Your task to perform on an android device: Clear the shopping cart on bestbuy.com. Add alienware aurora to the cart on bestbuy.com, then select checkout. Image 0: 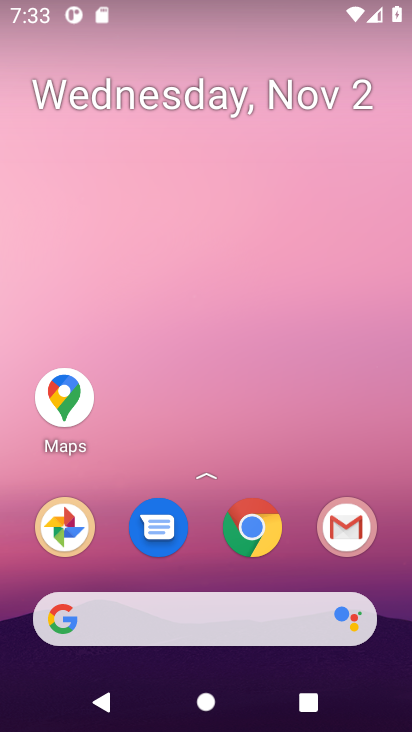
Step 0: click (258, 548)
Your task to perform on an android device: Clear the shopping cart on bestbuy.com. Add alienware aurora to the cart on bestbuy.com, then select checkout. Image 1: 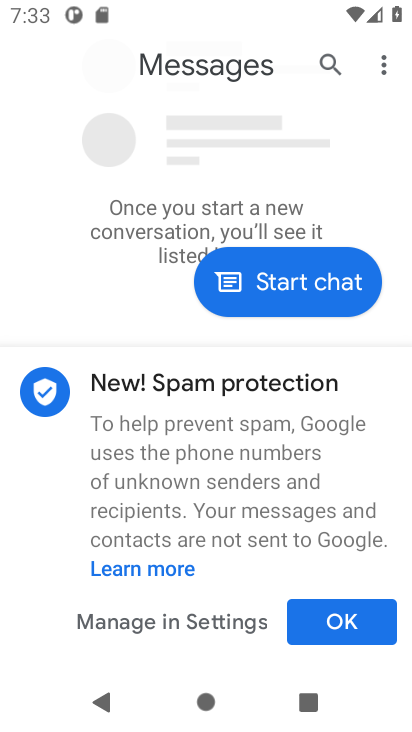
Step 1: press home button
Your task to perform on an android device: Clear the shopping cart on bestbuy.com. Add alienware aurora to the cart on bestbuy.com, then select checkout. Image 2: 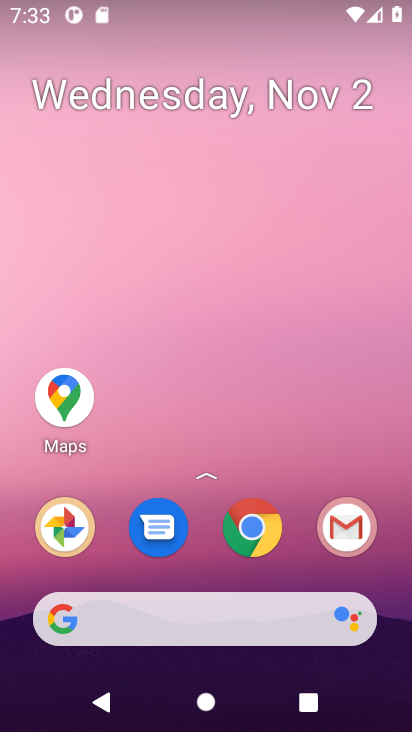
Step 2: click (266, 543)
Your task to perform on an android device: Clear the shopping cart on bestbuy.com. Add alienware aurora to the cart on bestbuy.com, then select checkout. Image 3: 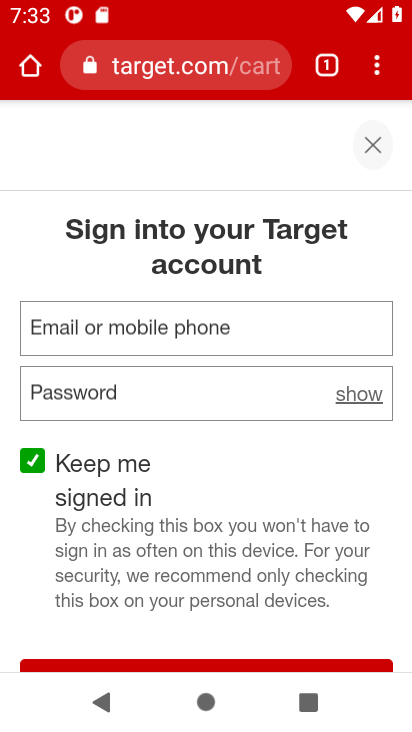
Step 3: click (172, 70)
Your task to perform on an android device: Clear the shopping cart on bestbuy.com. Add alienware aurora to the cart on bestbuy.com, then select checkout. Image 4: 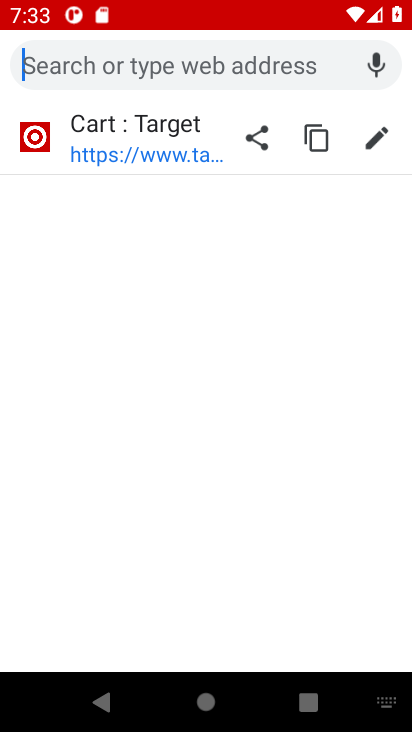
Step 4: type "bestbuy"
Your task to perform on an android device: Clear the shopping cart on bestbuy.com. Add alienware aurora to the cart on bestbuy.com, then select checkout. Image 5: 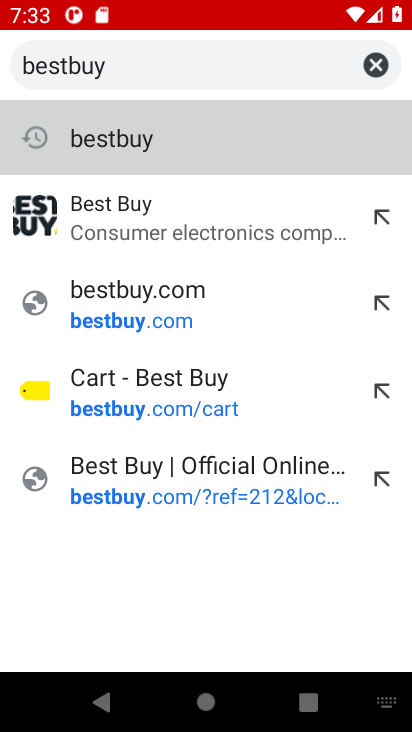
Step 5: click (108, 140)
Your task to perform on an android device: Clear the shopping cart on bestbuy.com. Add alienware aurora to the cart on bestbuy.com, then select checkout. Image 6: 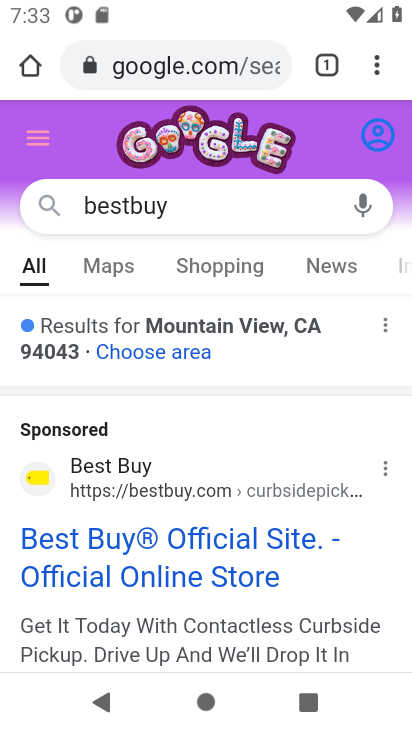
Step 6: click (137, 581)
Your task to perform on an android device: Clear the shopping cart on bestbuy.com. Add alienware aurora to the cart on bestbuy.com, then select checkout. Image 7: 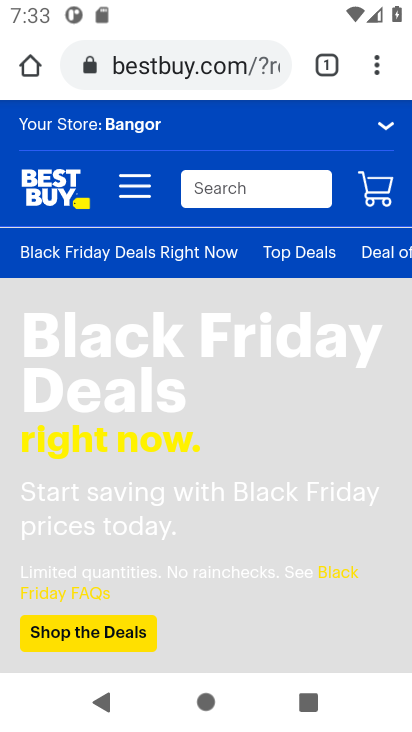
Step 7: click (383, 191)
Your task to perform on an android device: Clear the shopping cart on bestbuy.com. Add alienware aurora to the cart on bestbuy.com, then select checkout. Image 8: 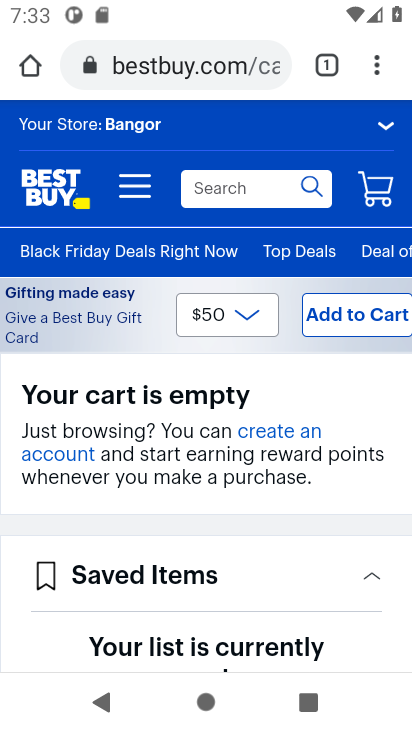
Step 8: click (272, 193)
Your task to perform on an android device: Clear the shopping cart on bestbuy.com. Add alienware aurora to the cart on bestbuy.com, then select checkout. Image 9: 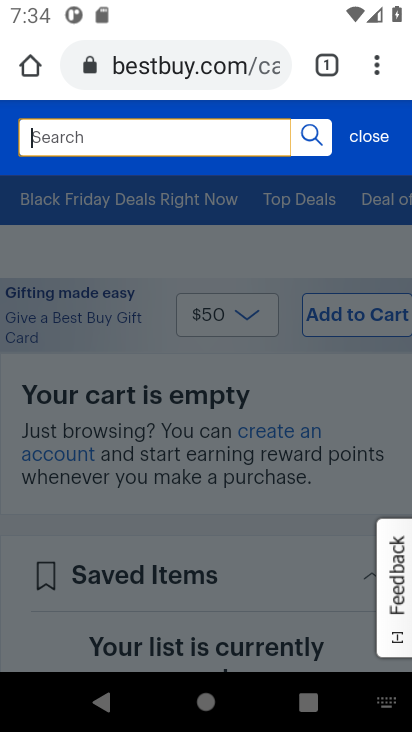
Step 9: type "alienware aurora"
Your task to perform on an android device: Clear the shopping cart on bestbuy.com. Add alienware aurora to the cart on bestbuy.com, then select checkout. Image 10: 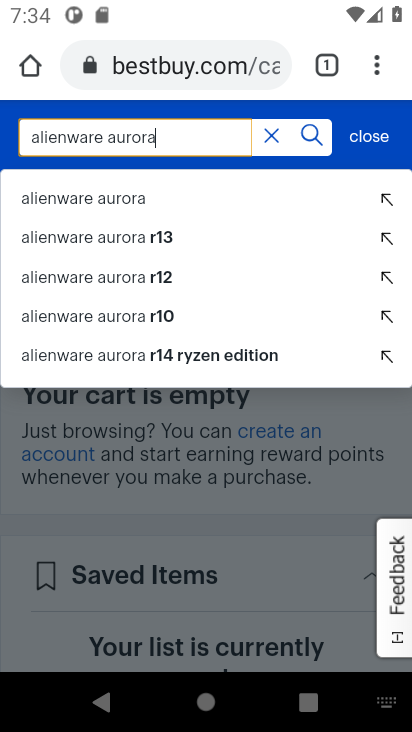
Step 10: click (74, 197)
Your task to perform on an android device: Clear the shopping cart on bestbuy.com. Add alienware aurora to the cart on bestbuy.com, then select checkout. Image 11: 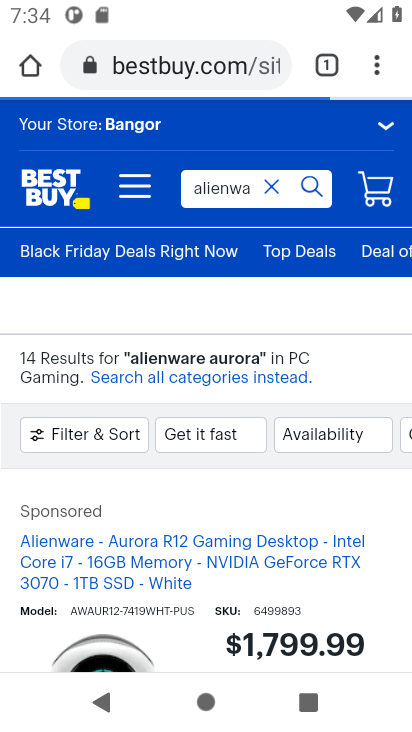
Step 11: drag from (217, 505) to (230, 247)
Your task to perform on an android device: Clear the shopping cart on bestbuy.com. Add alienware aurora to the cart on bestbuy.com, then select checkout. Image 12: 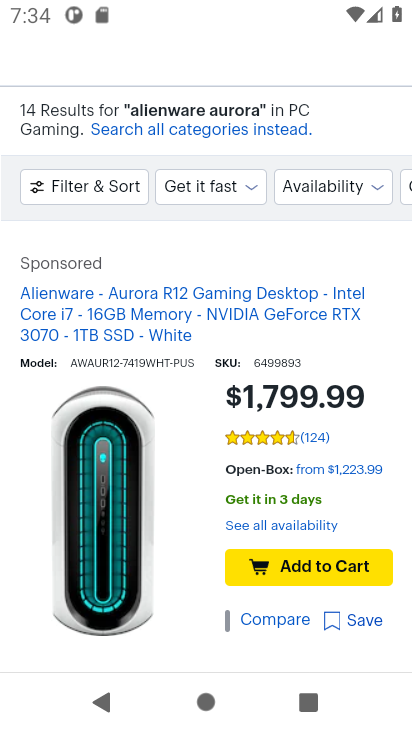
Step 12: click (302, 570)
Your task to perform on an android device: Clear the shopping cart on bestbuy.com. Add alienware aurora to the cart on bestbuy.com, then select checkout. Image 13: 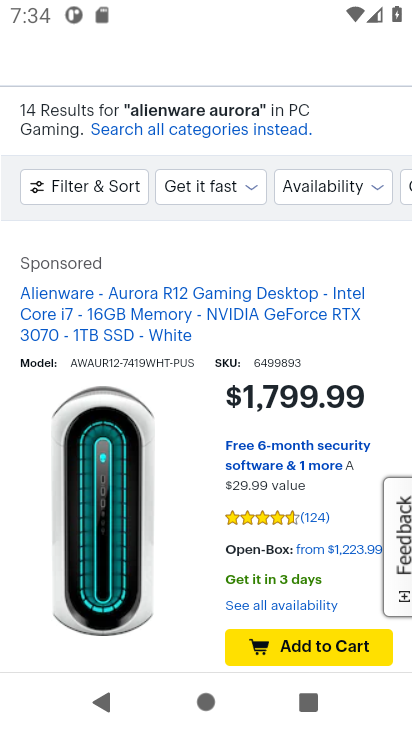
Step 13: click (120, 490)
Your task to perform on an android device: Clear the shopping cart on bestbuy.com. Add alienware aurora to the cart on bestbuy.com, then select checkout. Image 14: 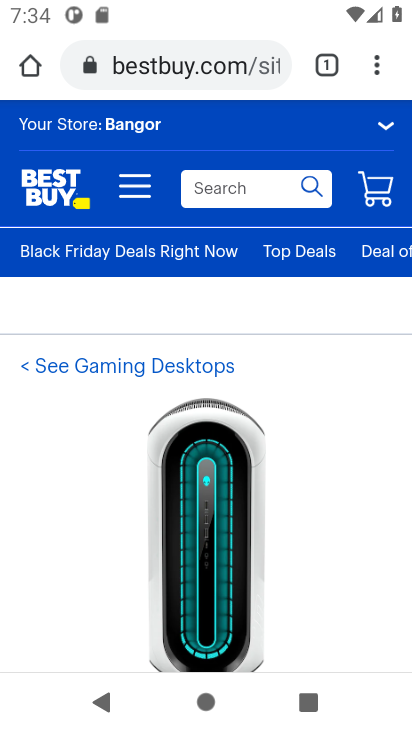
Step 14: drag from (340, 566) to (323, 237)
Your task to perform on an android device: Clear the shopping cart on bestbuy.com. Add alienware aurora to the cart on bestbuy.com, then select checkout. Image 15: 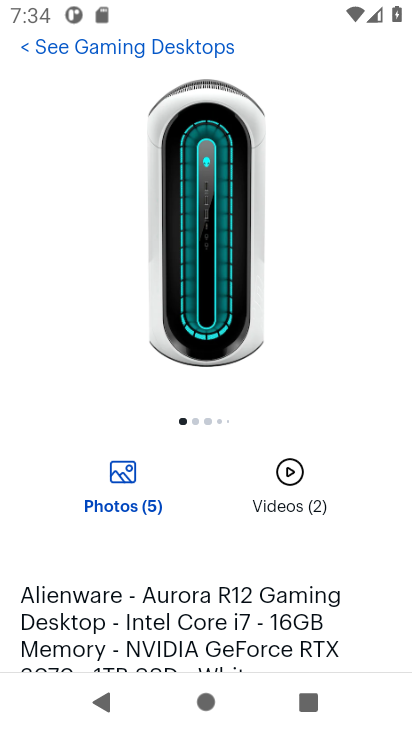
Step 15: drag from (351, 609) to (351, 199)
Your task to perform on an android device: Clear the shopping cart on bestbuy.com. Add alienware aurora to the cart on bestbuy.com, then select checkout. Image 16: 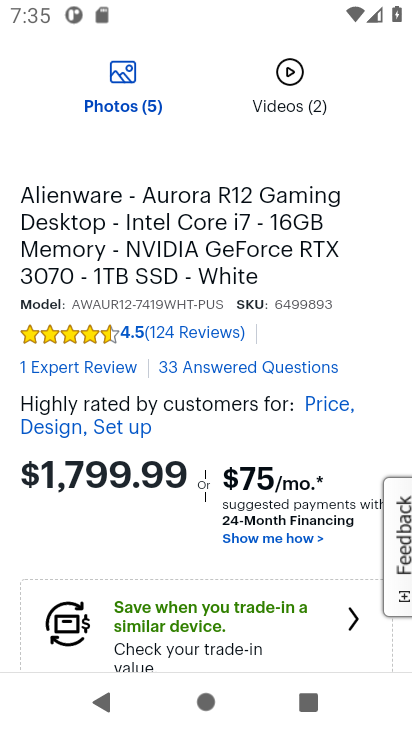
Step 16: drag from (358, 473) to (325, 131)
Your task to perform on an android device: Clear the shopping cart on bestbuy.com. Add alienware aurora to the cart on bestbuy.com, then select checkout. Image 17: 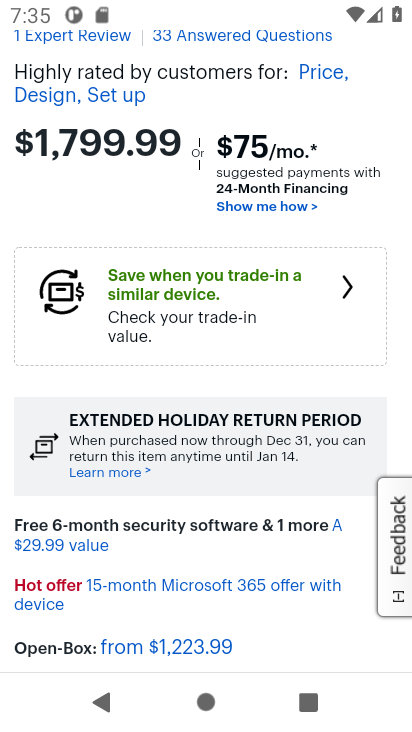
Step 17: drag from (311, 376) to (321, 88)
Your task to perform on an android device: Clear the shopping cart on bestbuy.com. Add alienware aurora to the cart on bestbuy.com, then select checkout. Image 18: 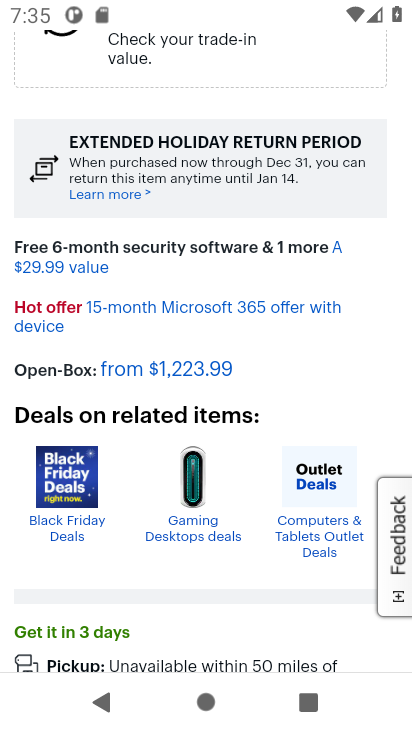
Step 18: drag from (329, 412) to (315, 100)
Your task to perform on an android device: Clear the shopping cart on bestbuy.com. Add alienware aurora to the cart on bestbuy.com, then select checkout. Image 19: 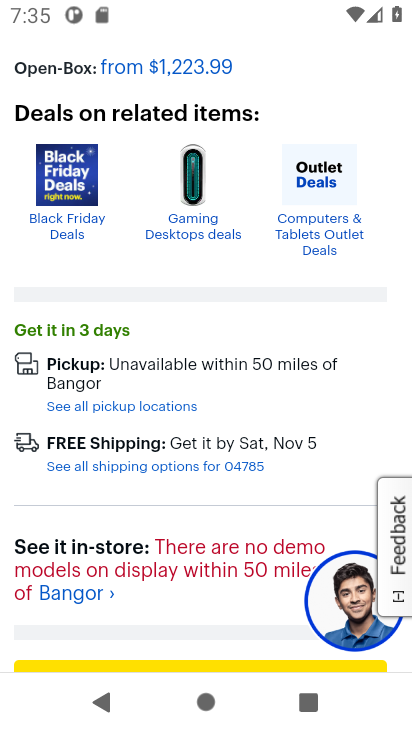
Step 19: drag from (330, 318) to (316, 69)
Your task to perform on an android device: Clear the shopping cart on bestbuy.com. Add alienware aurora to the cart on bestbuy.com, then select checkout. Image 20: 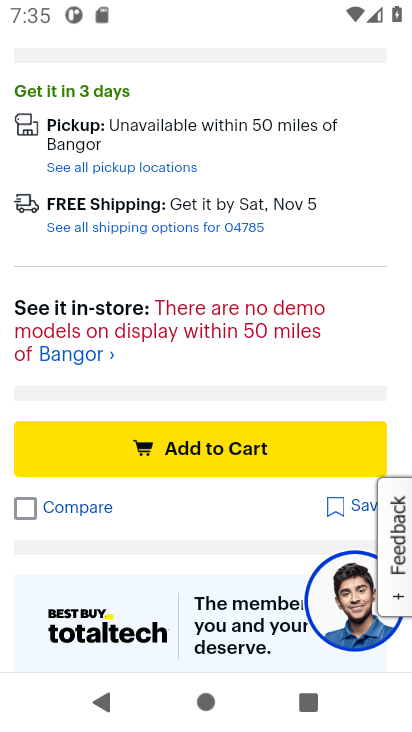
Step 20: click (196, 444)
Your task to perform on an android device: Clear the shopping cart on bestbuy.com. Add alienware aurora to the cart on bestbuy.com, then select checkout. Image 21: 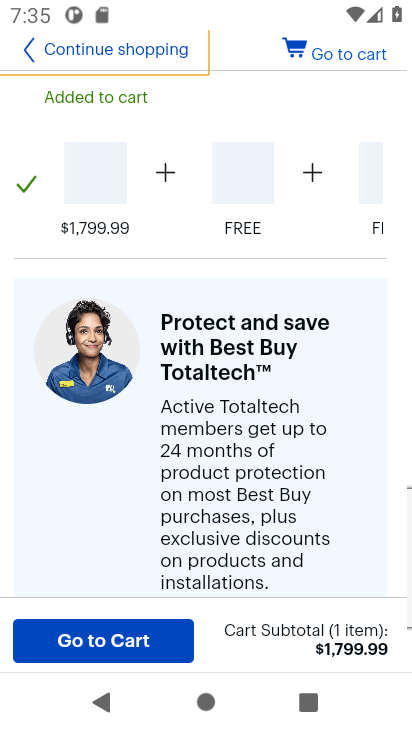
Step 21: click (104, 638)
Your task to perform on an android device: Clear the shopping cart on bestbuy.com. Add alienware aurora to the cart on bestbuy.com, then select checkout. Image 22: 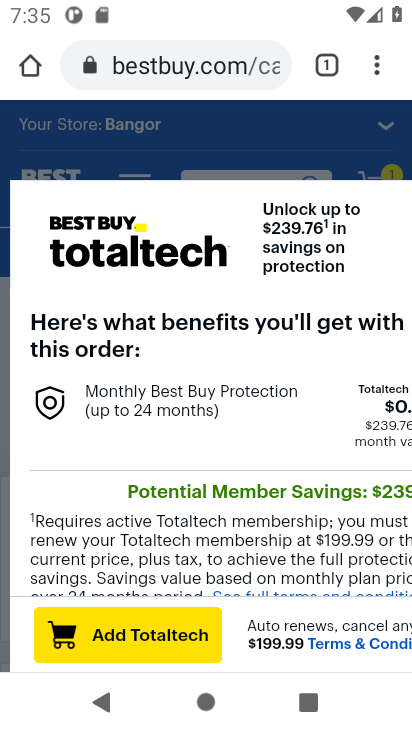
Step 22: drag from (286, 350) to (24, 361)
Your task to perform on an android device: Clear the shopping cart on bestbuy.com. Add alienware aurora to the cart on bestbuy.com, then select checkout. Image 23: 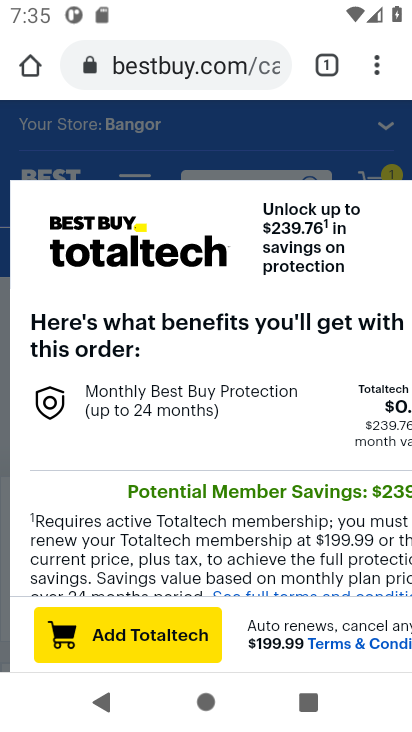
Step 23: drag from (317, 297) to (171, 309)
Your task to perform on an android device: Clear the shopping cart on bestbuy.com. Add alienware aurora to the cart on bestbuy.com, then select checkout. Image 24: 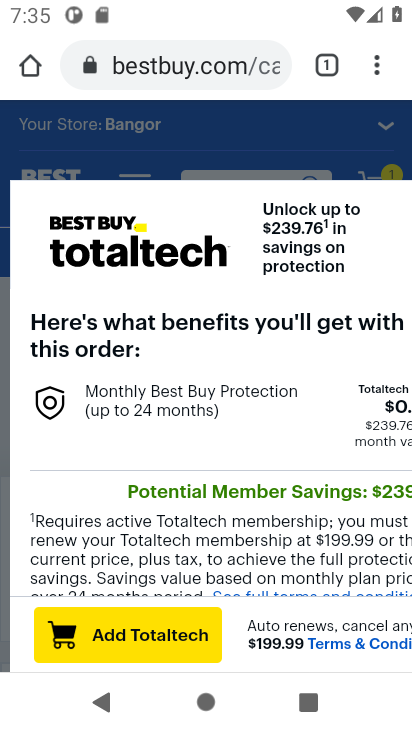
Step 24: click (371, 173)
Your task to perform on an android device: Clear the shopping cart on bestbuy.com. Add alienware aurora to the cart on bestbuy.com, then select checkout. Image 25: 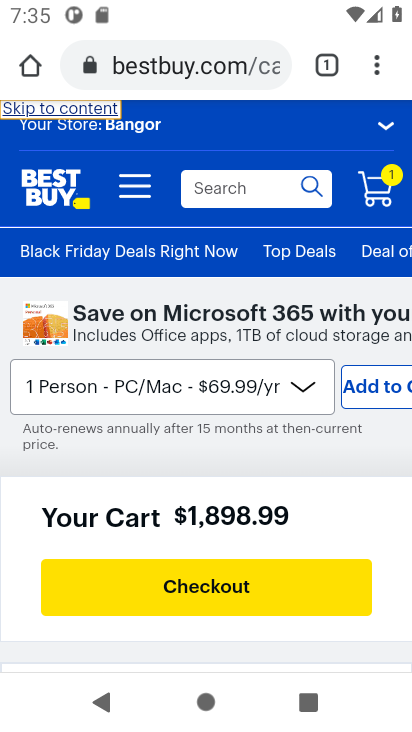
Step 25: click (195, 593)
Your task to perform on an android device: Clear the shopping cart on bestbuy.com. Add alienware aurora to the cart on bestbuy.com, then select checkout. Image 26: 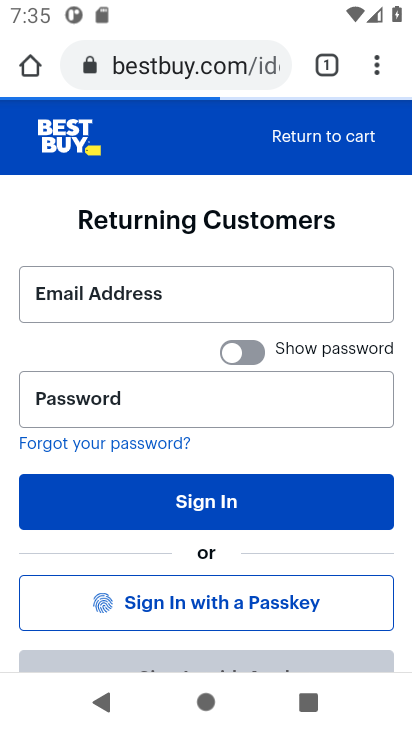
Step 26: task complete